Your task to perform on an android device: Open the phone app and click the voicemail tab. Image 0: 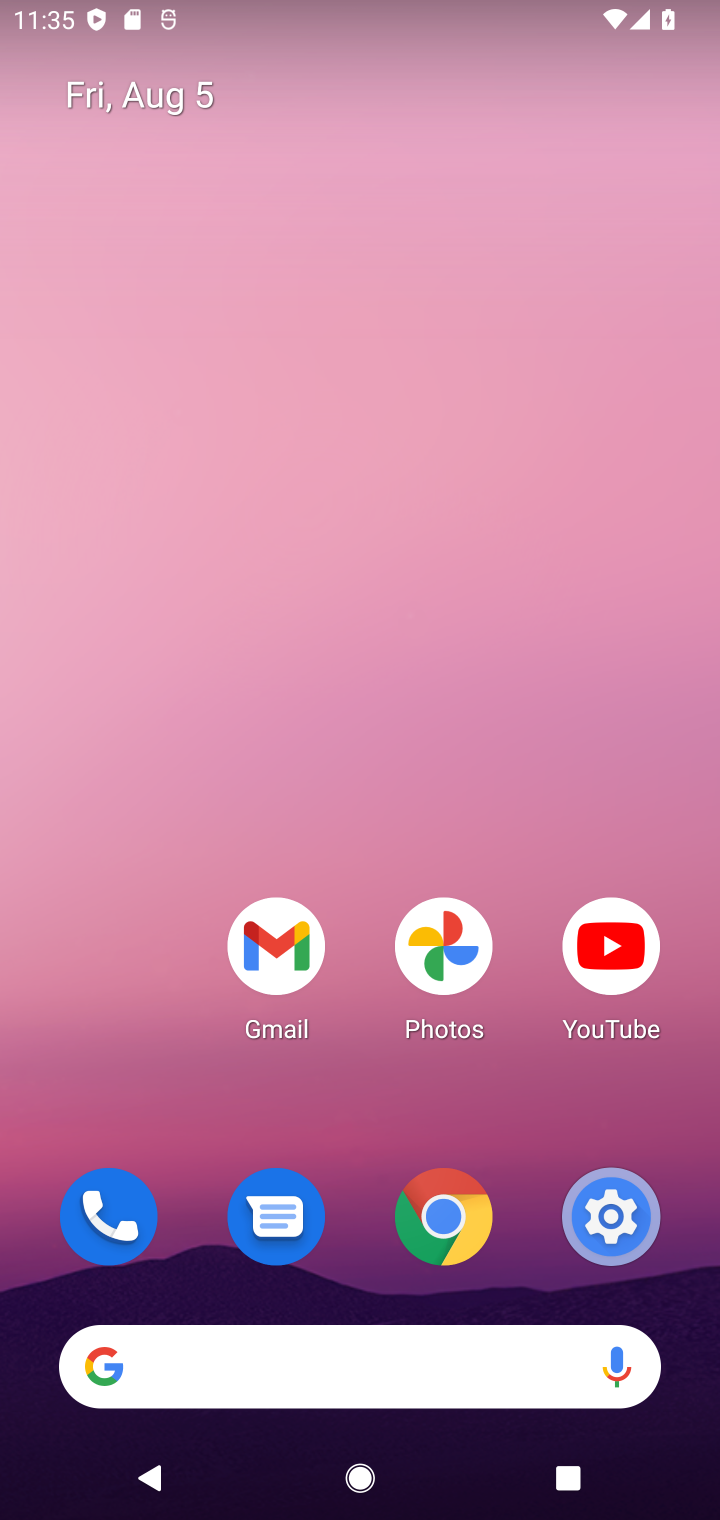
Step 0: drag from (110, 1040) to (237, 51)
Your task to perform on an android device: Open the phone app and click the voicemail tab. Image 1: 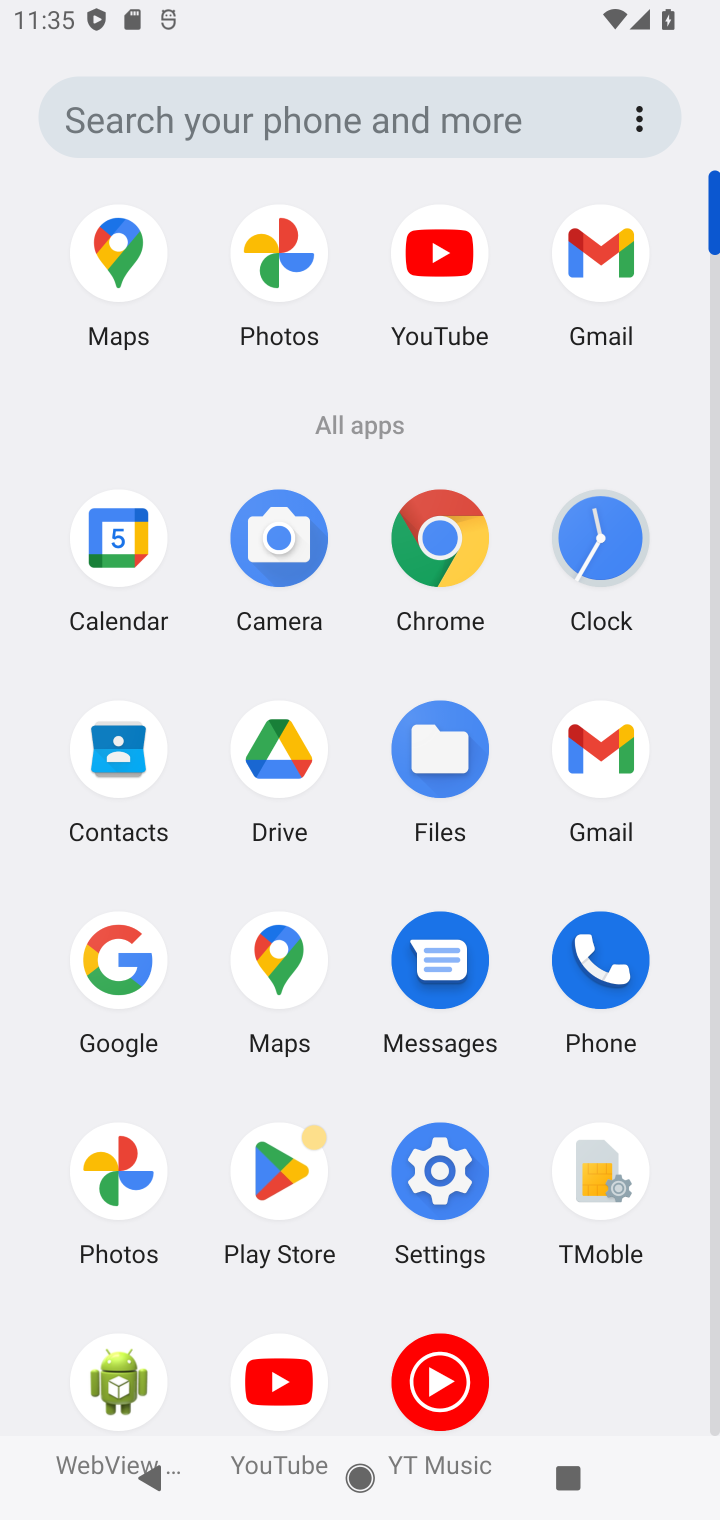
Step 1: click (590, 955)
Your task to perform on an android device: Open the phone app and click the voicemail tab. Image 2: 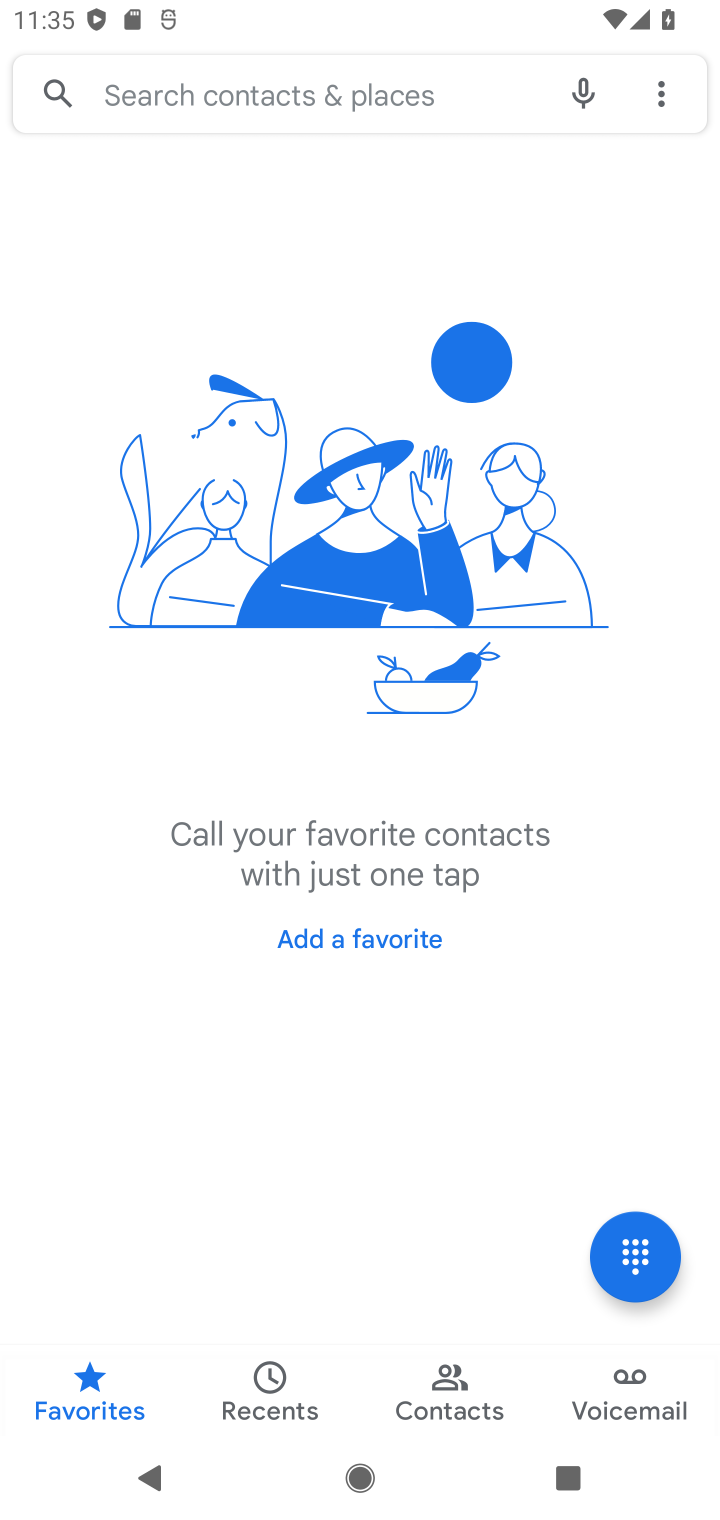
Step 2: click (635, 1396)
Your task to perform on an android device: Open the phone app and click the voicemail tab. Image 3: 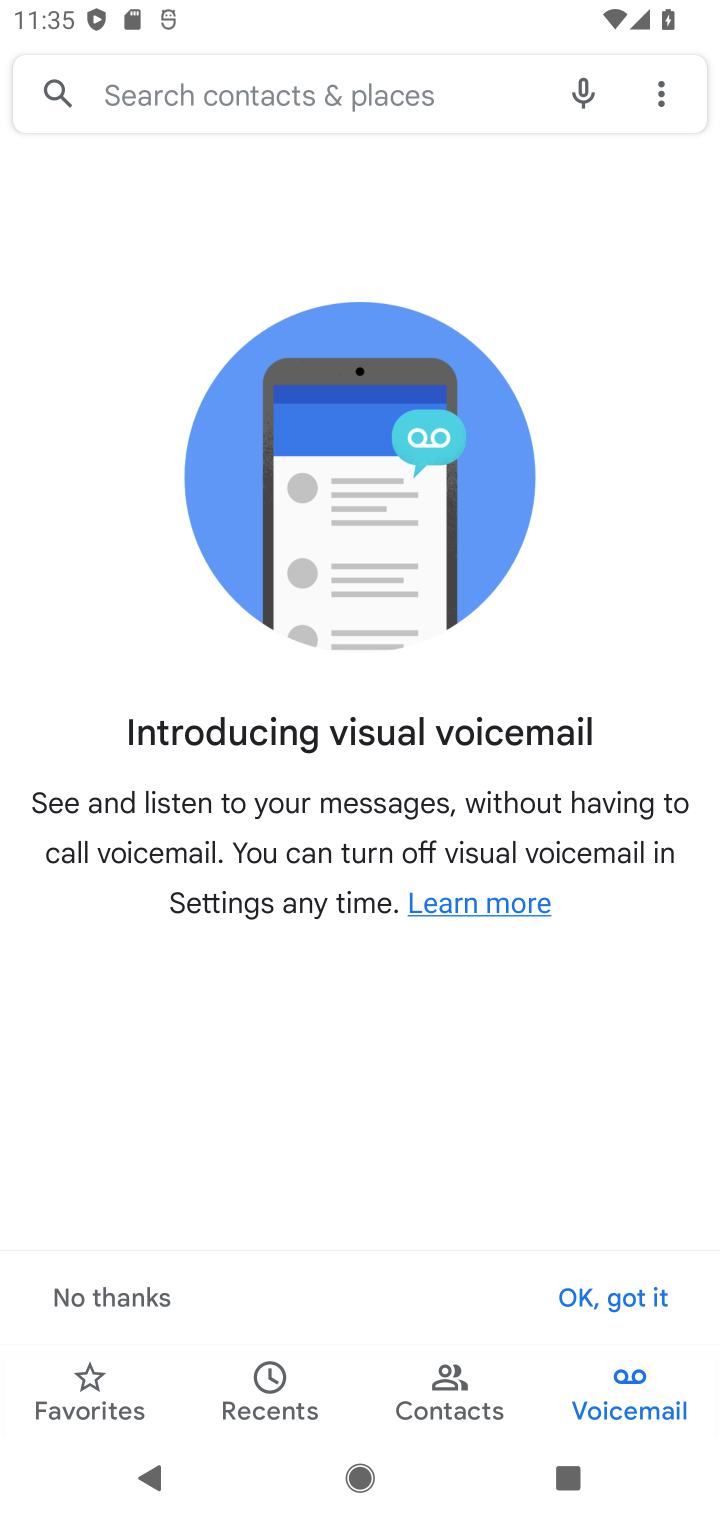
Step 3: task complete